Your task to perform on an android device: Open the Play Movies app and select the watchlist tab. Image 0: 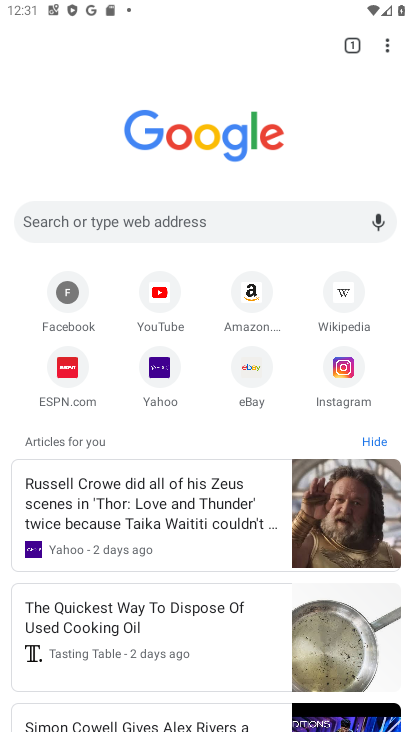
Step 0: press home button
Your task to perform on an android device: Open the Play Movies app and select the watchlist tab. Image 1: 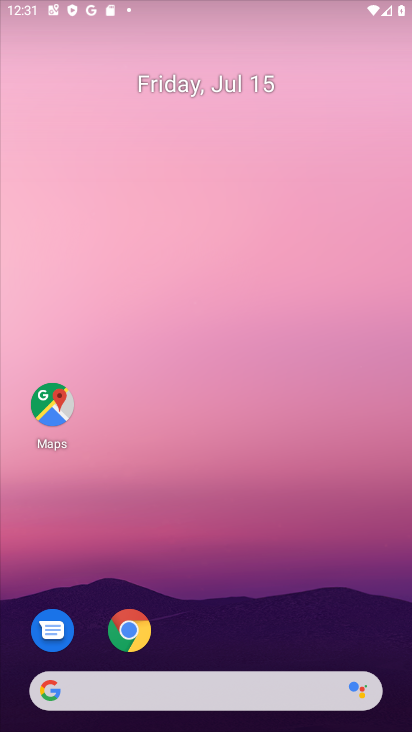
Step 1: drag from (316, 640) to (251, 0)
Your task to perform on an android device: Open the Play Movies app and select the watchlist tab. Image 2: 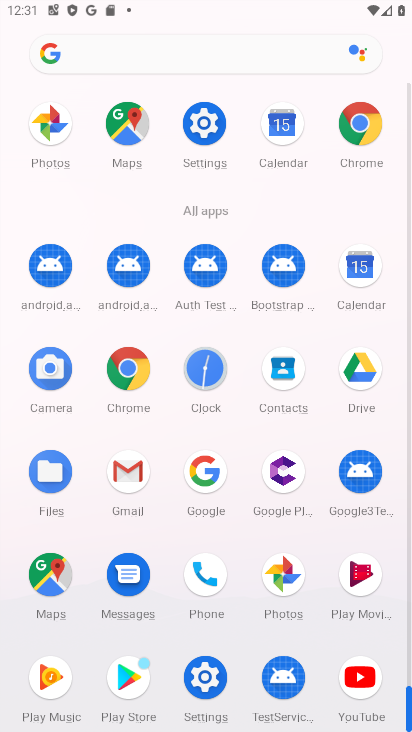
Step 2: click (361, 571)
Your task to perform on an android device: Open the Play Movies app and select the watchlist tab. Image 3: 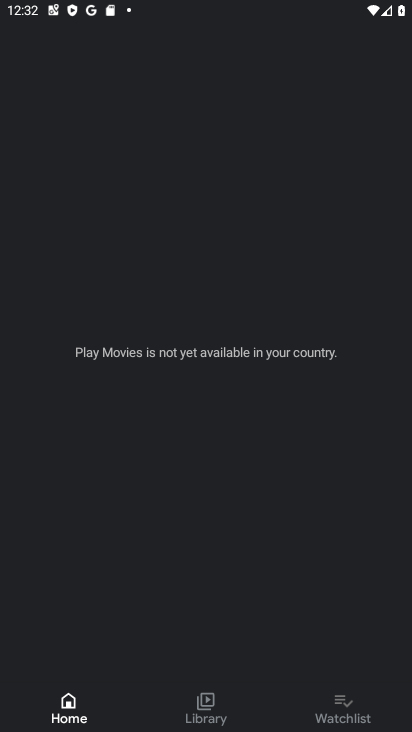
Step 3: click (357, 716)
Your task to perform on an android device: Open the Play Movies app and select the watchlist tab. Image 4: 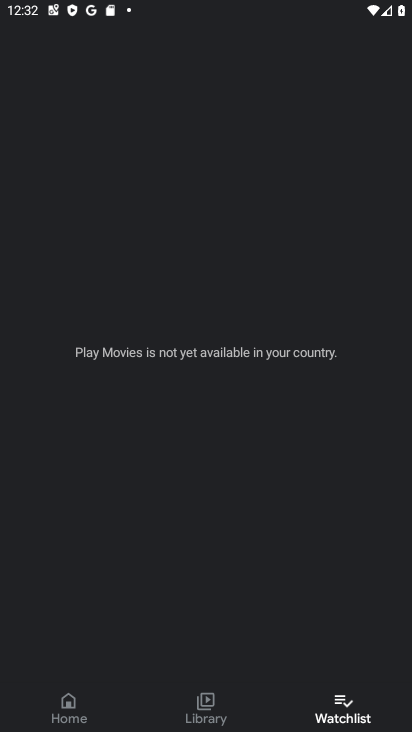
Step 4: task complete